Your task to perform on an android device: open app "Google Sheets" (install if not already installed) Image 0: 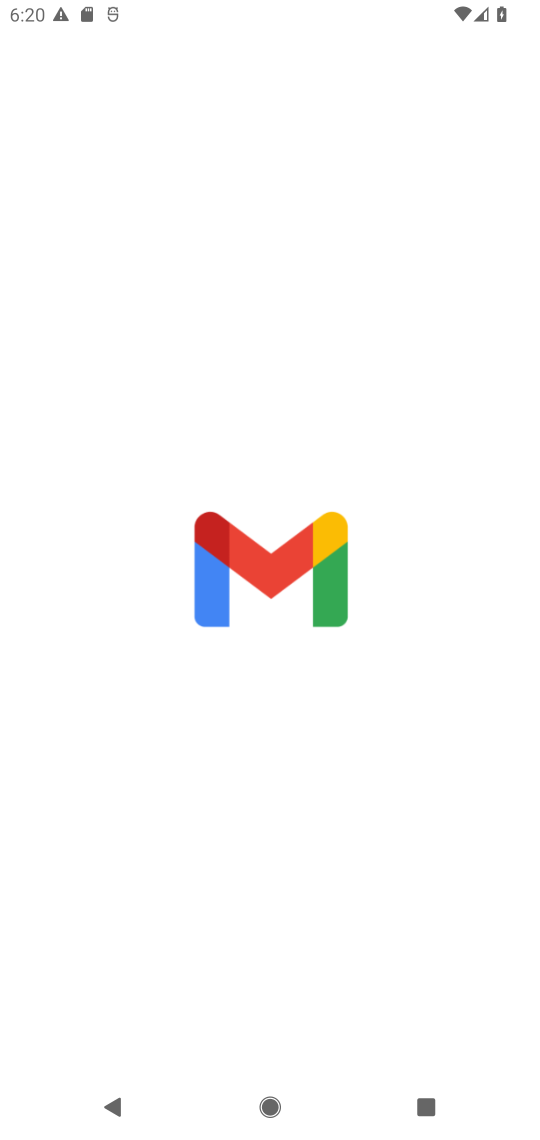
Step 0: drag from (325, 873) to (323, 231)
Your task to perform on an android device: open app "Google Sheets" (install if not already installed) Image 1: 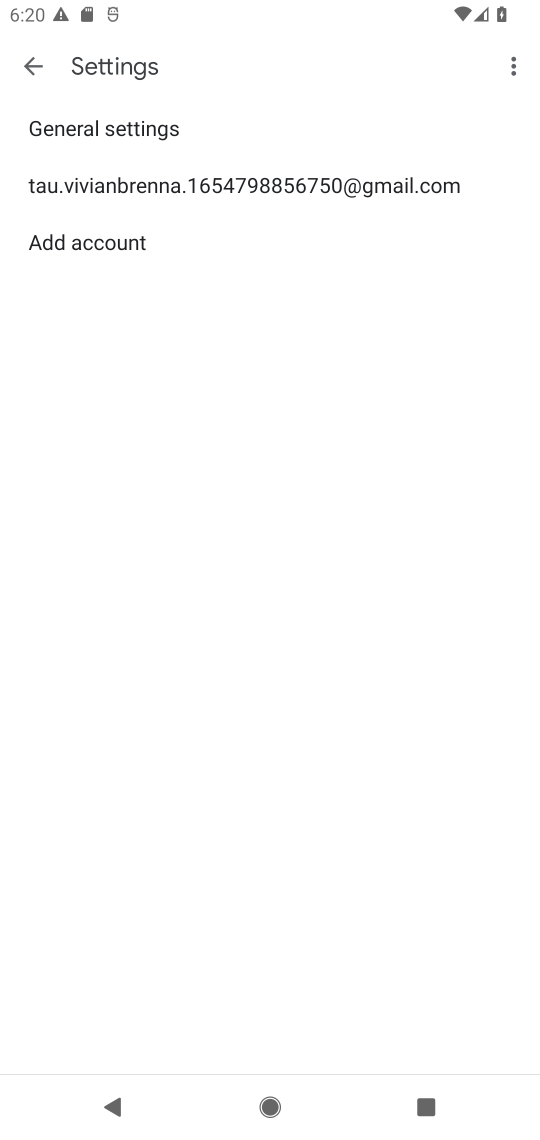
Step 1: press home button
Your task to perform on an android device: open app "Google Sheets" (install if not already installed) Image 2: 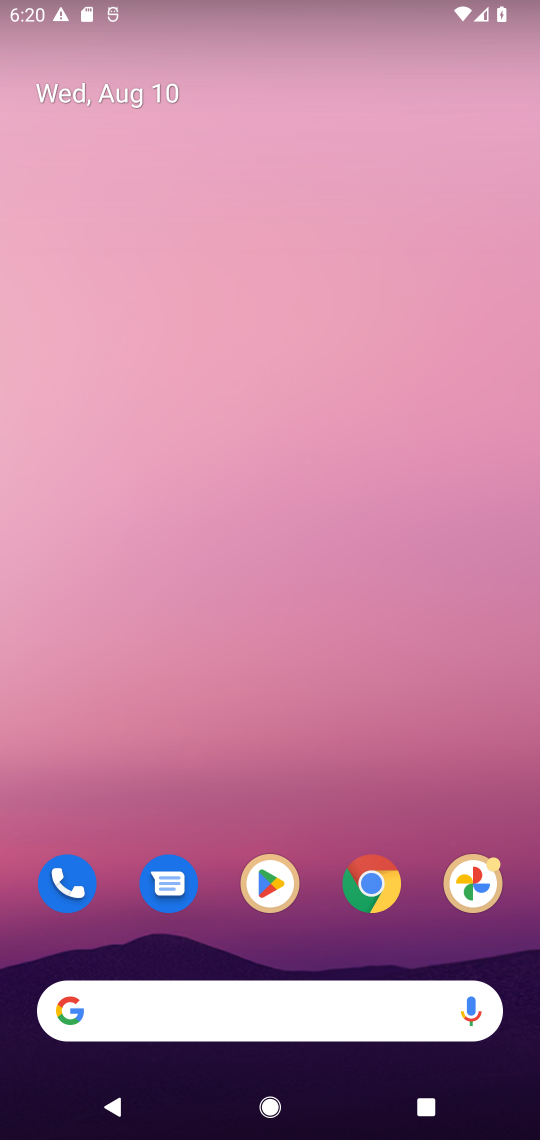
Step 2: click (312, 132)
Your task to perform on an android device: open app "Google Sheets" (install if not already installed) Image 3: 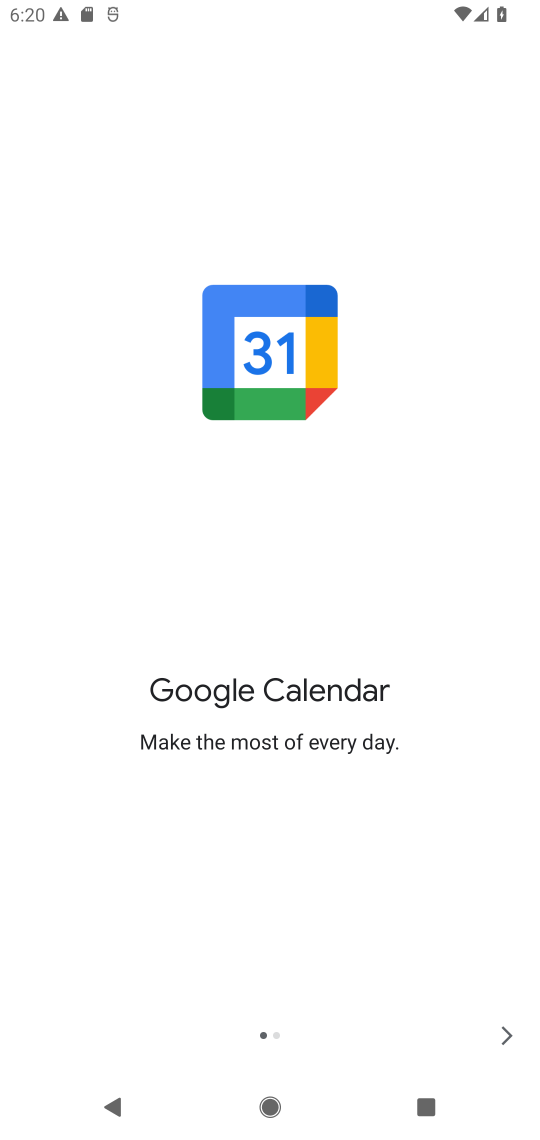
Step 3: press home button
Your task to perform on an android device: open app "Google Sheets" (install if not already installed) Image 4: 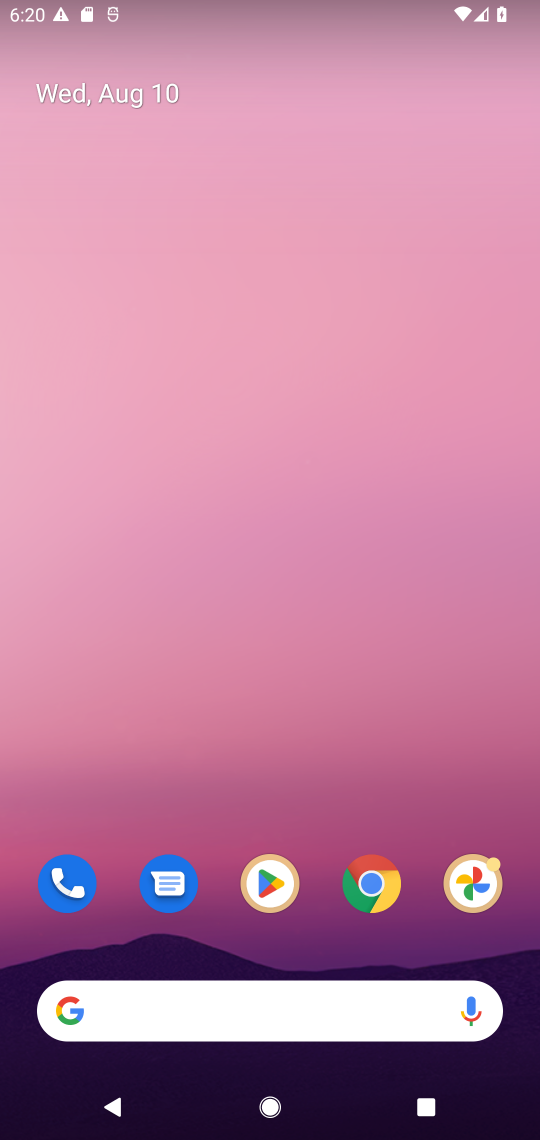
Step 4: drag from (302, 962) to (276, 879)
Your task to perform on an android device: open app "Google Sheets" (install if not already installed) Image 5: 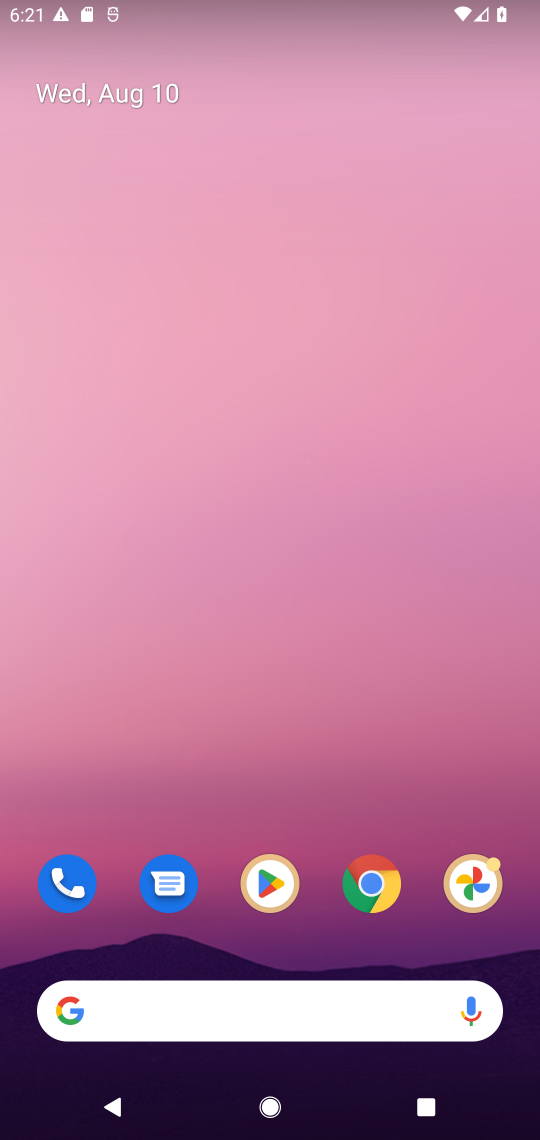
Step 5: click (274, 894)
Your task to perform on an android device: open app "Google Sheets" (install if not already installed) Image 6: 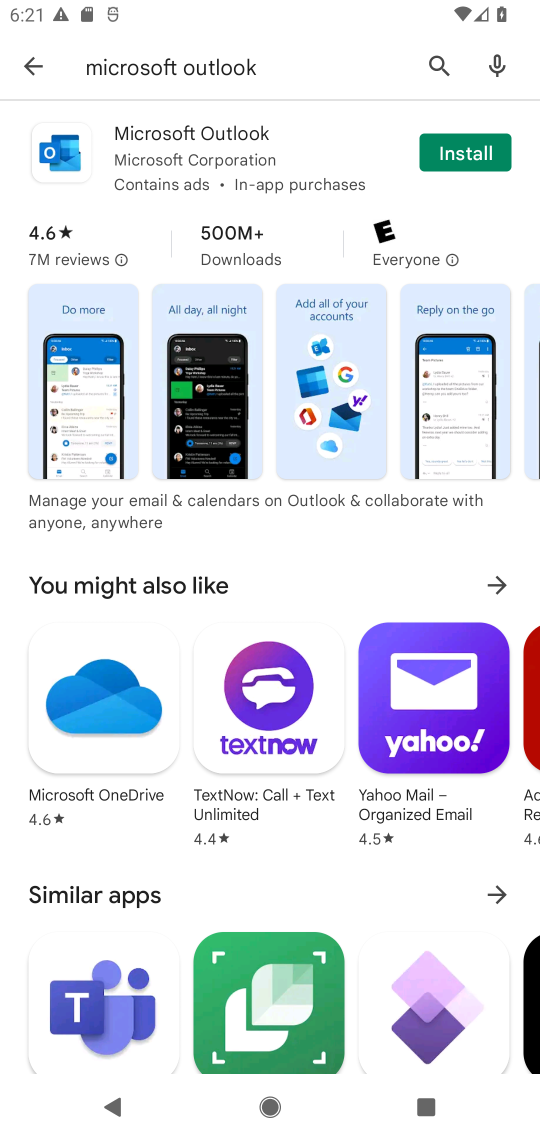
Step 6: drag from (274, 957) to (260, 89)
Your task to perform on an android device: open app "Google Sheets" (install if not already installed) Image 7: 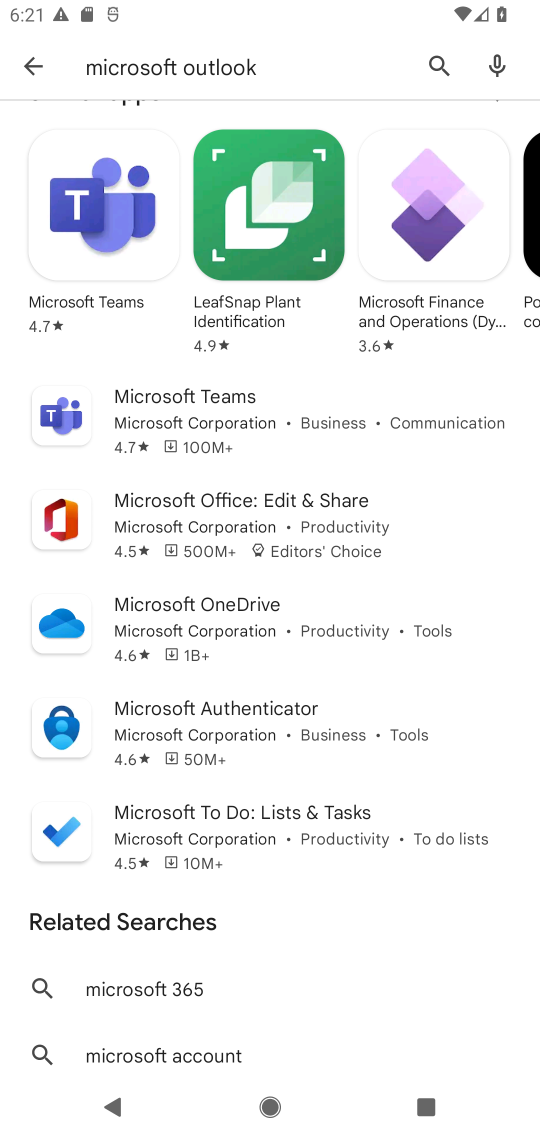
Step 7: click (439, 64)
Your task to perform on an android device: open app "Google Sheets" (install if not already installed) Image 8: 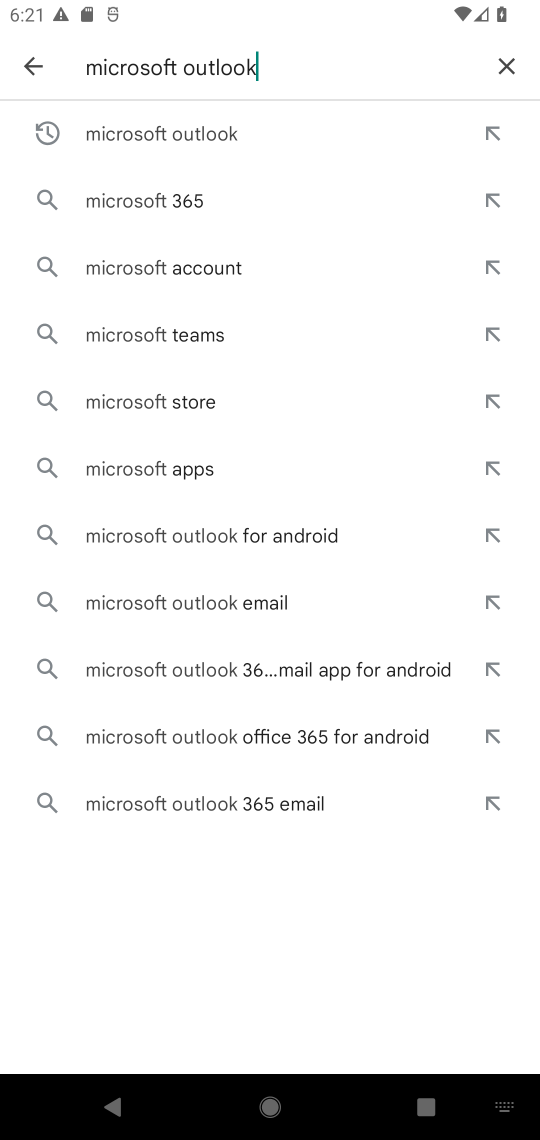
Step 8: click (501, 58)
Your task to perform on an android device: open app "Google Sheets" (install if not already installed) Image 9: 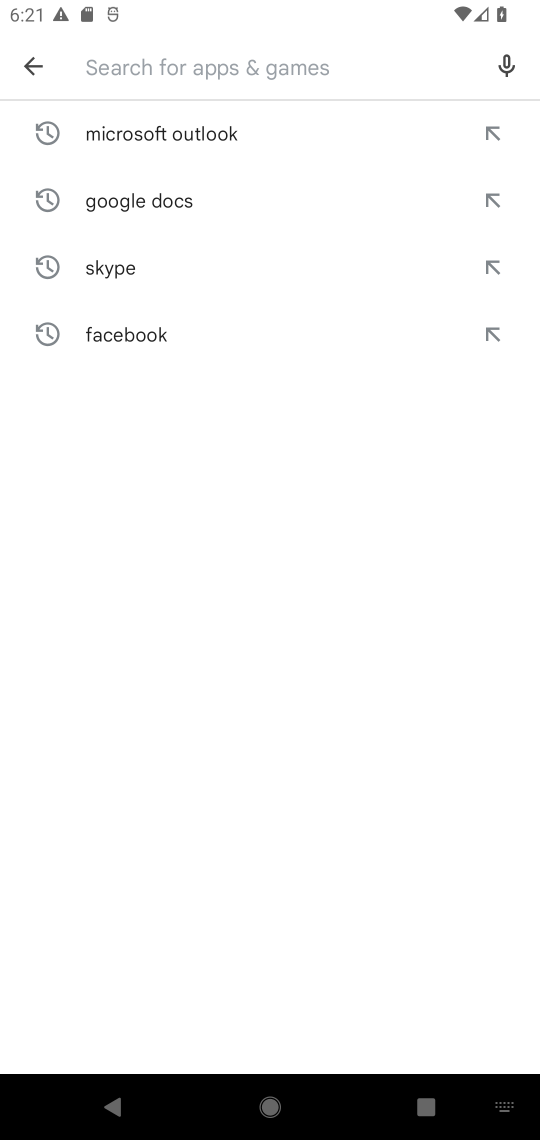
Step 9: type "Google Sheets"
Your task to perform on an android device: open app "Google Sheets" (install if not already installed) Image 10: 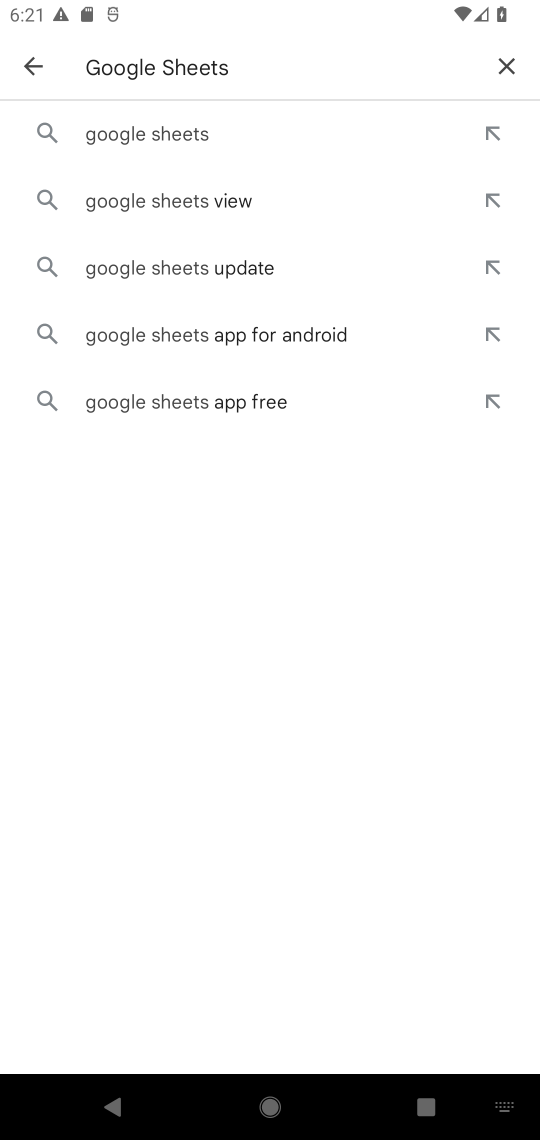
Step 10: click (175, 131)
Your task to perform on an android device: open app "Google Sheets" (install if not already installed) Image 11: 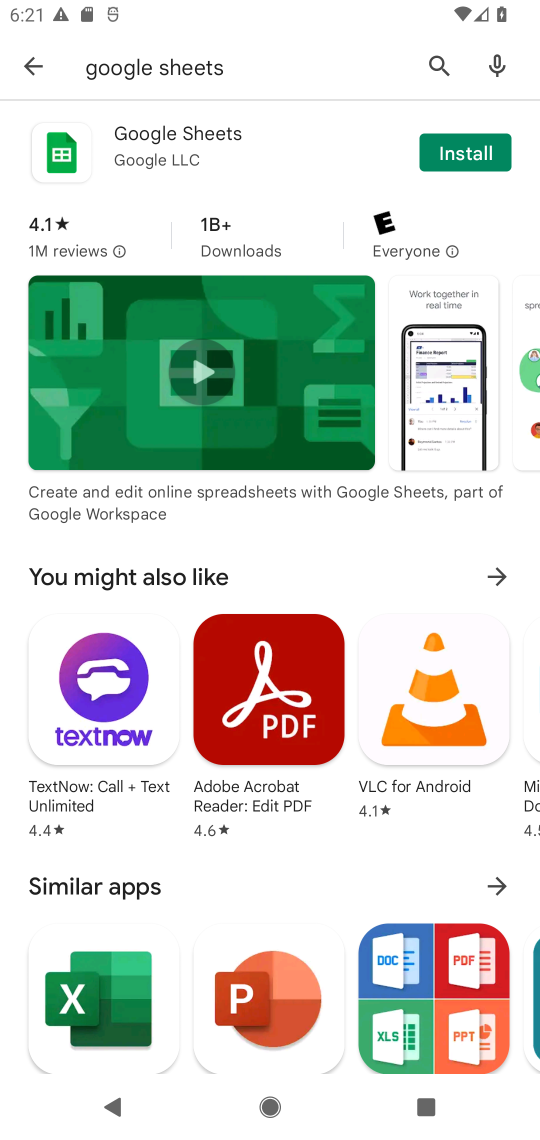
Step 11: click (464, 148)
Your task to perform on an android device: open app "Google Sheets" (install if not already installed) Image 12: 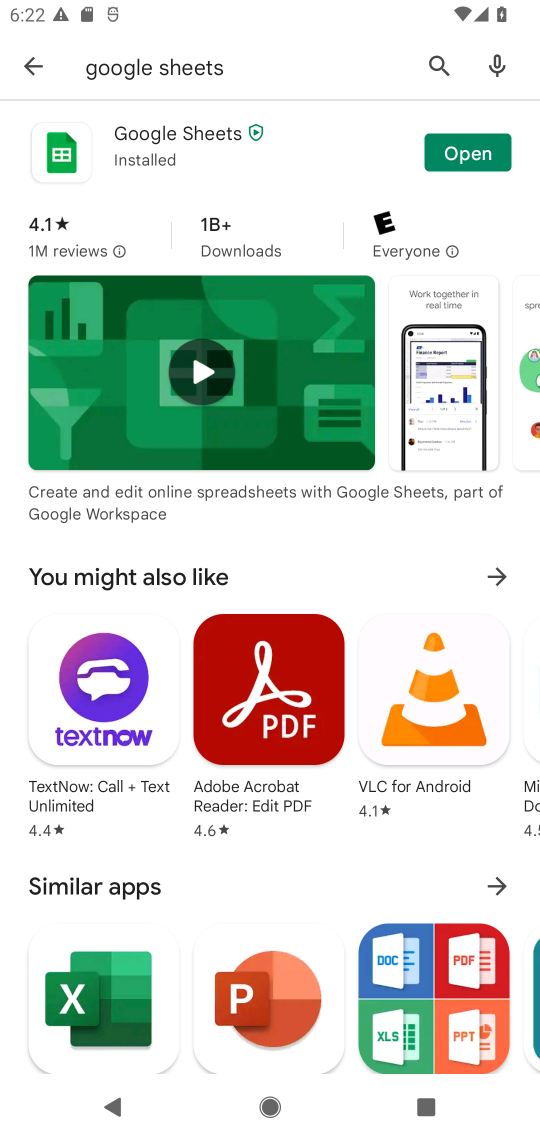
Step 12: click (466, 158)
Your task to perform on an android device: open app "Google Sheets" (install if not already installed) Image 13: 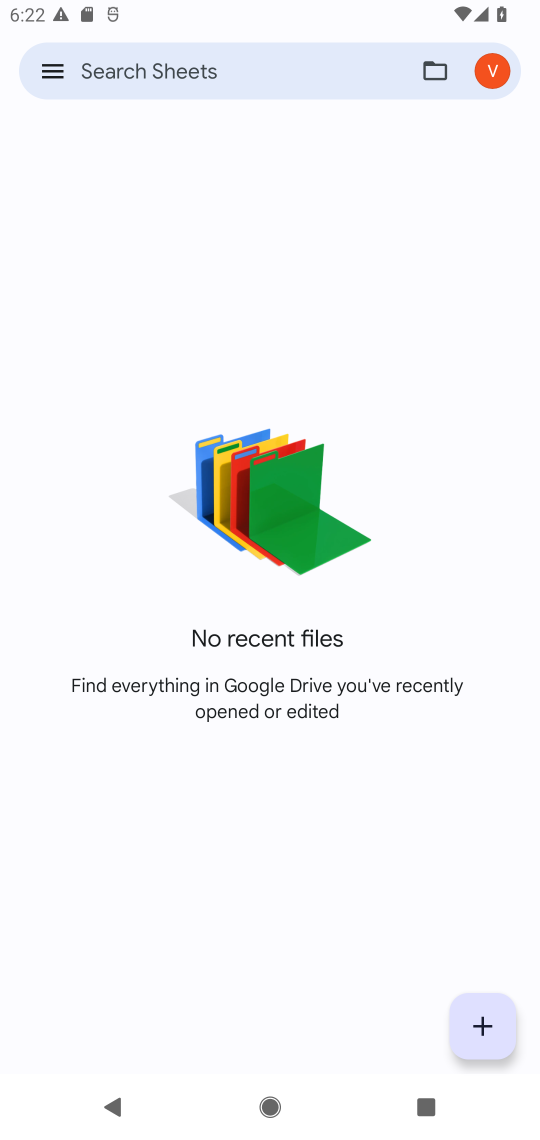
Step 13: task complete